Your task to perform on an android device: uninstall "Duolingo: language lessons" Image 0: 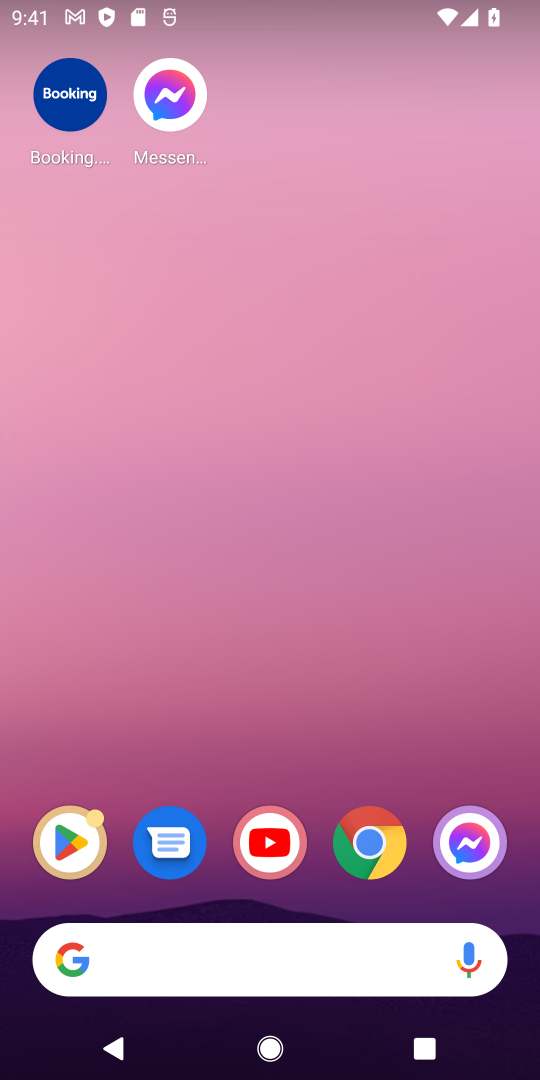
Step 0: click (50, 839)
Your task to perform on an android device: uninstall "Duolingo: language lessons" Image 1: 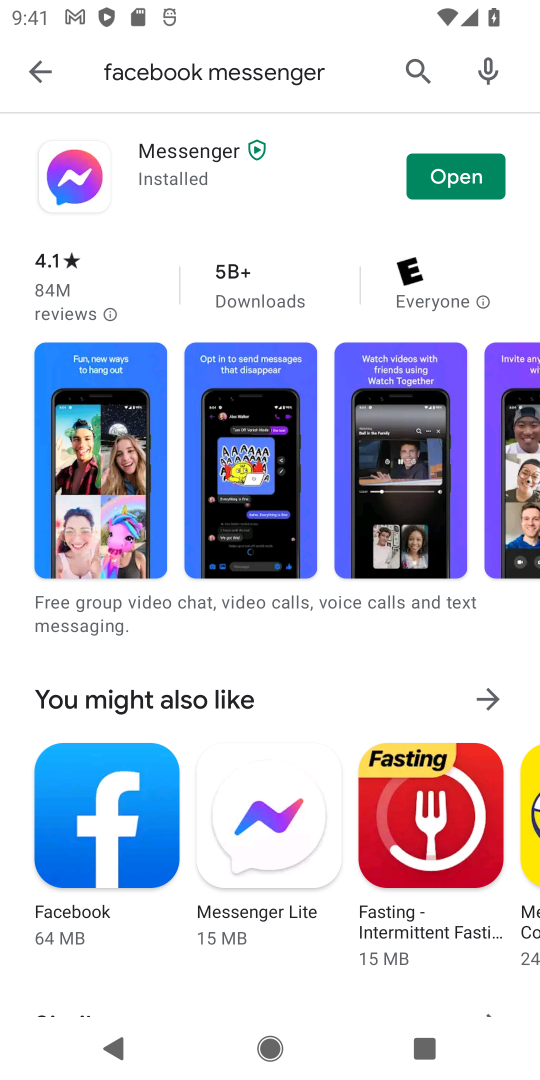
Step 1: click (423, 55)
Your task to perform on an android device: uninstall "Duolingo: language lessons" Image 2: 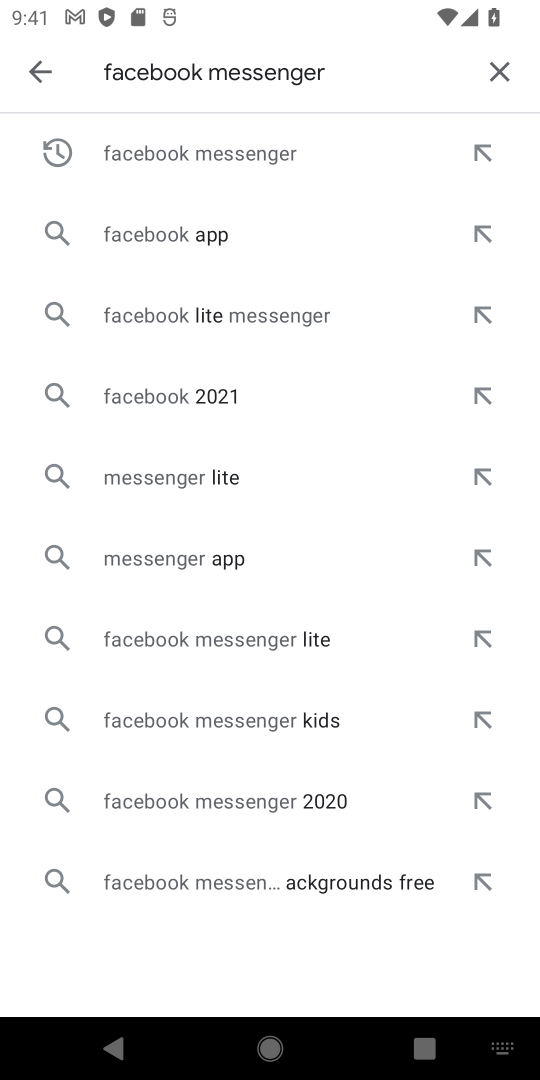
Step 2: click (485, 65)
Your task to perform on an android device: uninstall "Duolingo: language lessons" Image 3: 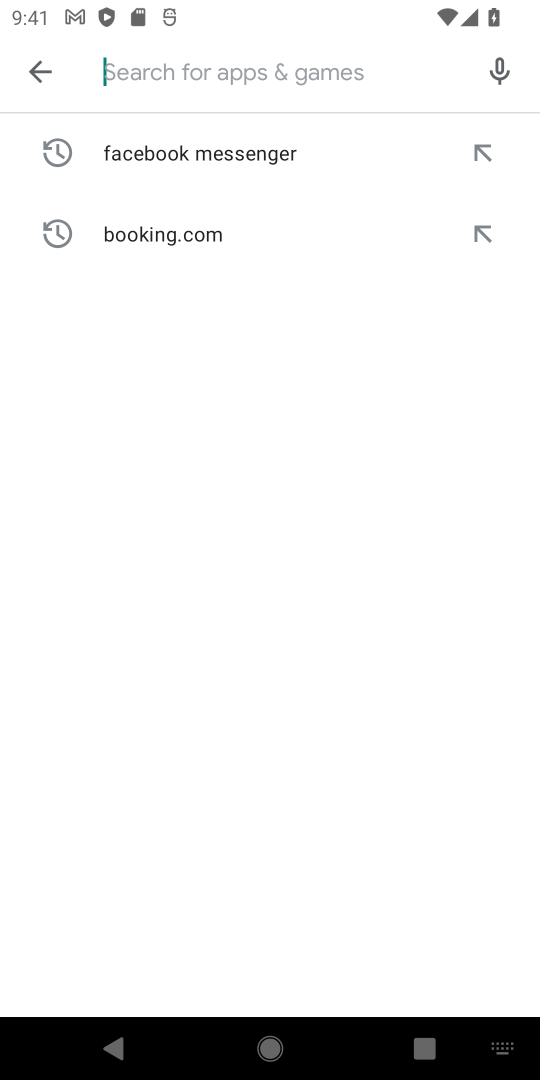
Step 3: click (136, 73)
Your task to perform on an android device: uninstall "Duolingo: language lessons" Image 4: 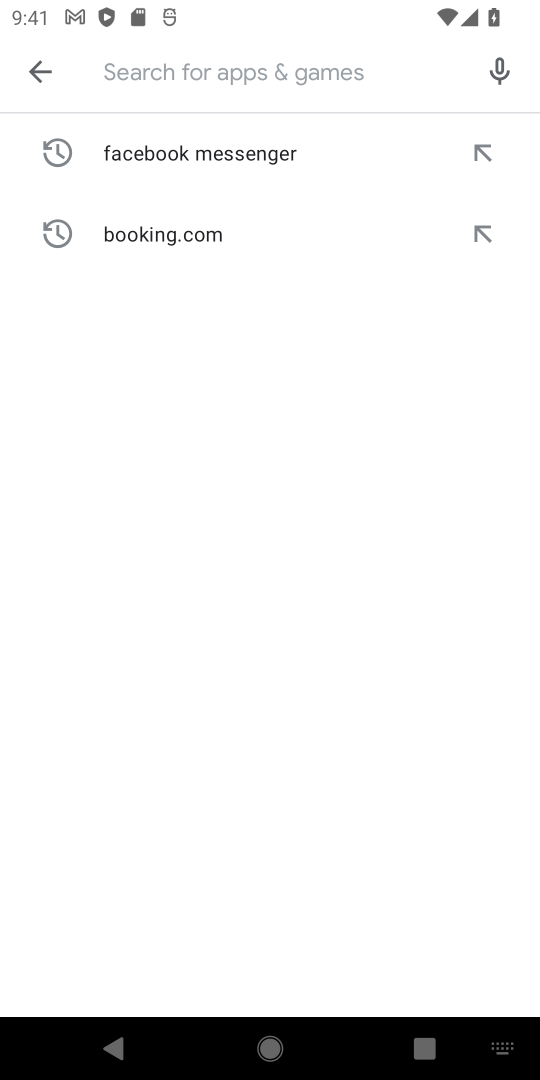
Step 4: type "Duolingo: language lessons"
Your task to perform on an android device: uninstall "Duolingo: language lessons" Image 5: 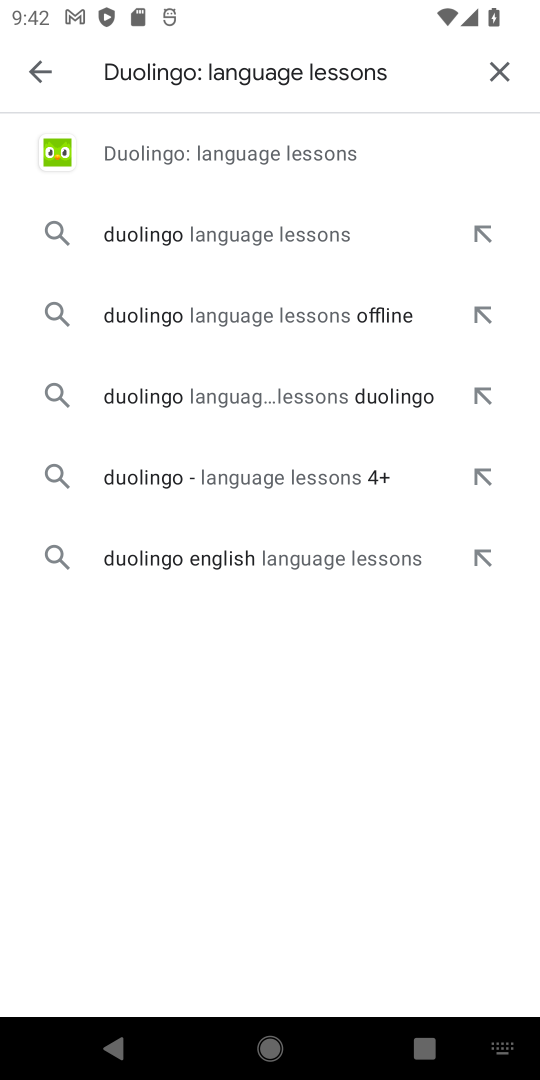
Step 5: click (243, 157)
Your task to perform on an android device: uninstall "Duolingo: language lessons" Image 6: 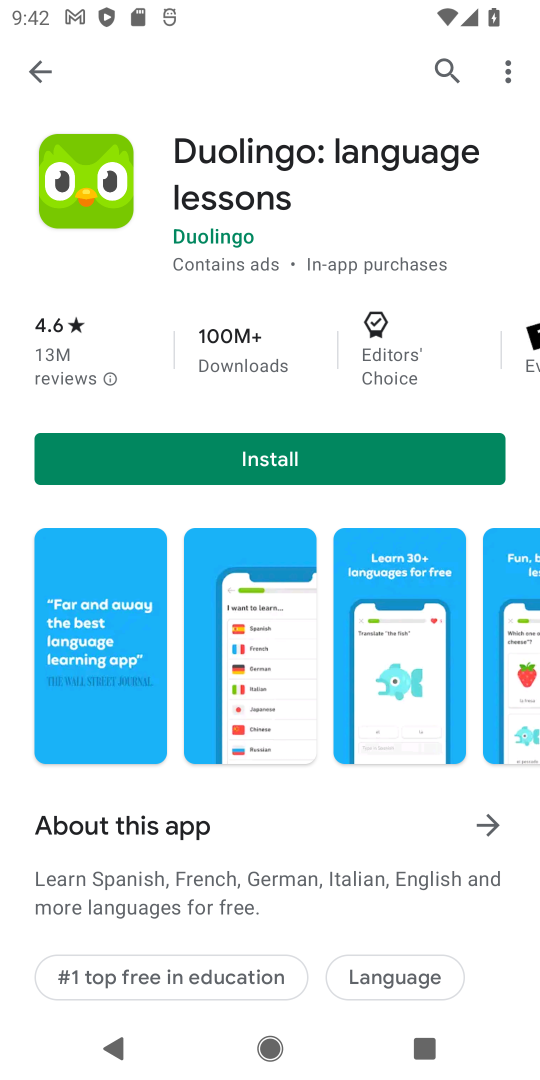
Step 6: task complete